Your task to perform on an android device: Open ESPN.com Image 0: 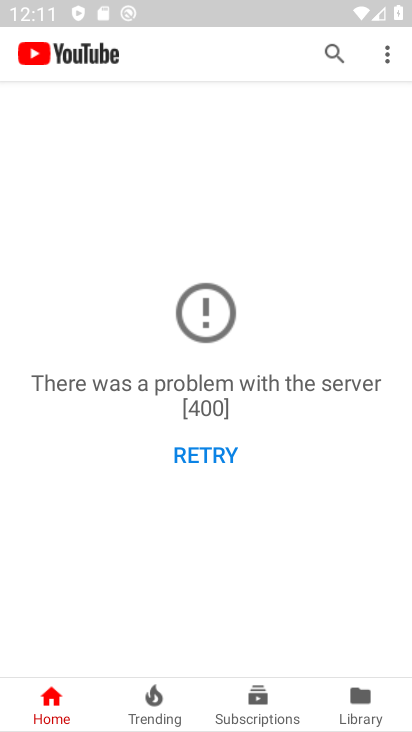
Step 0: press home button
Your task to perform on an android device: Open ESPN.com Image 1: 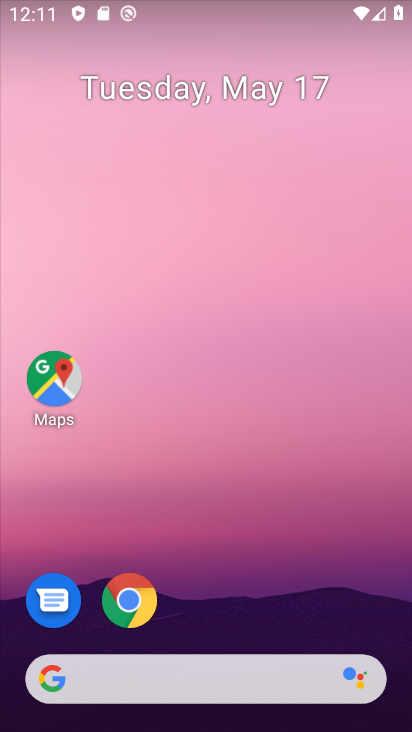
Step 1: click (132, 611)
Your task to perform on an android device: Open ESPN.com Image 2: 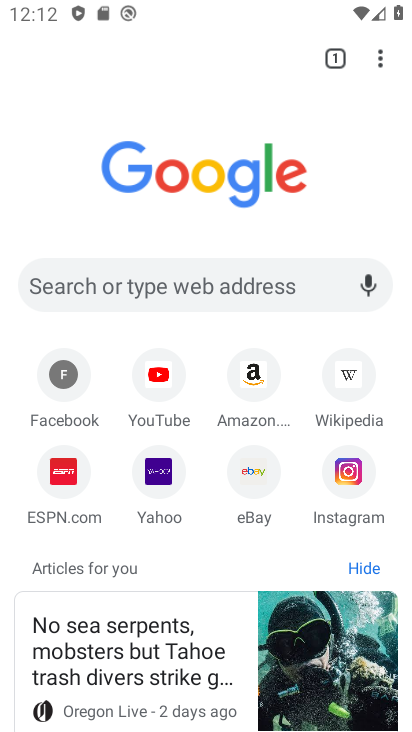
Step 2: click (69, 485)
Your task to perform on an android device: Open ESPN.com Image 3: 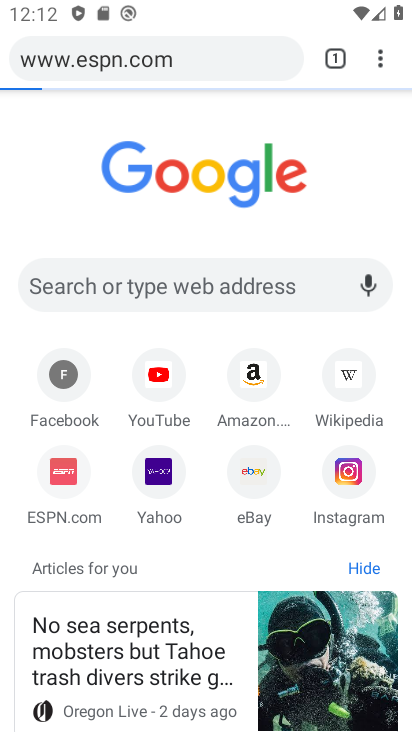
Step 3: click (69, 480)
Your task to perform on an android device: Open ESPN.com Image 4: 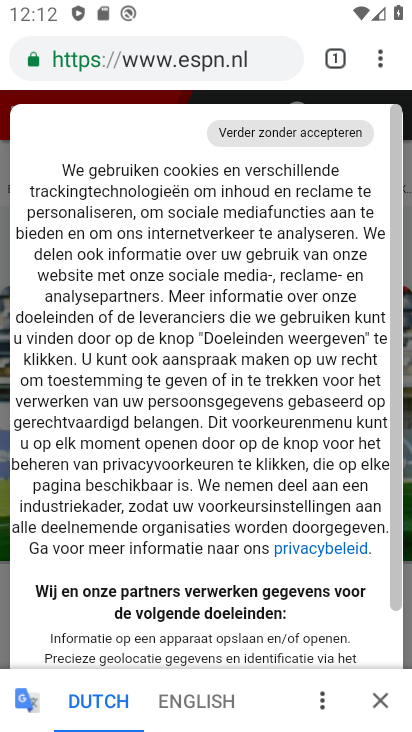
Step 4: task complete